Your task to perform on an android device: star an email in the gmail app Image 0: 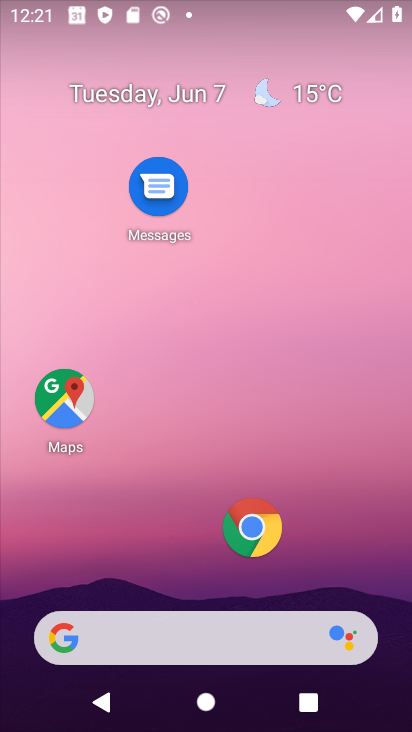
Step 0: drag from (194, 624) to (249, 278)
Your task to perform on an android device: star an email in the gmail app Image 1: 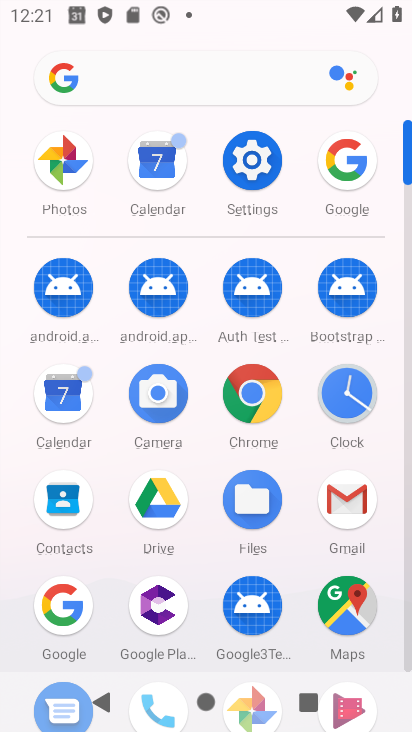
Step 1: click (352, 493)
Your task to perform on an android device: star an email in the gmail app Image 2: 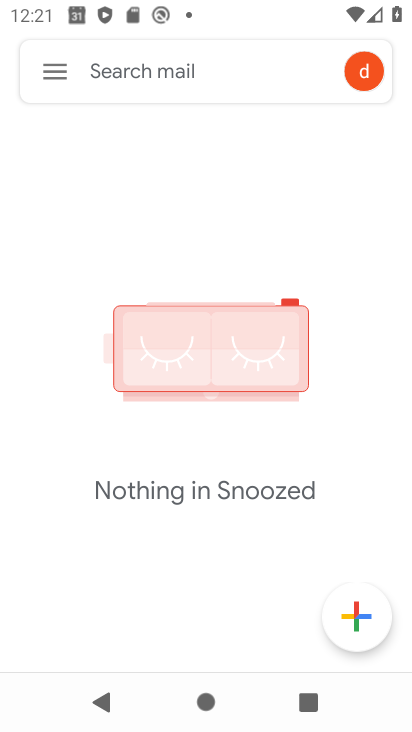
Step 2: click (55, 69)
Your task to perform on an android device: star an email in the gmail app Image 3: 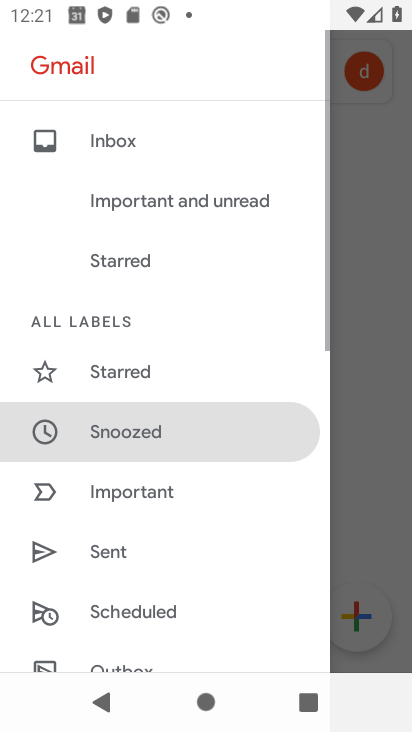
Step 3: click (95, 133)
Your task to perform on an android device: star an email in the gmail app Image 4: 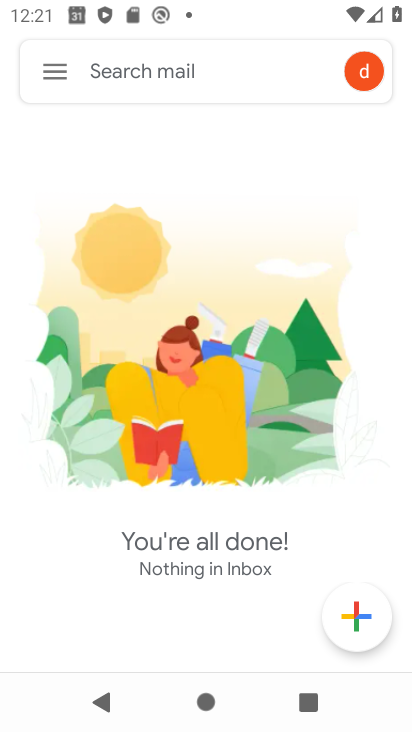
Step 4: task complete